Your task to perform on an android device: Set the phone to "Do not disturb". Image 0: 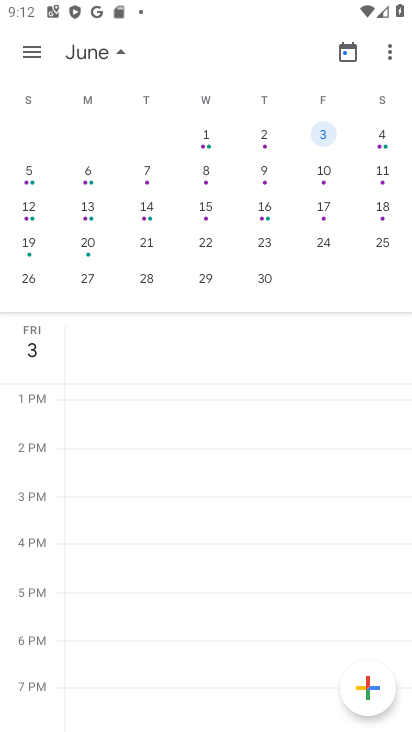
Step 0: press home button
Your task to perform on an android device: Set the phone to "Do not disturb". Image 1: 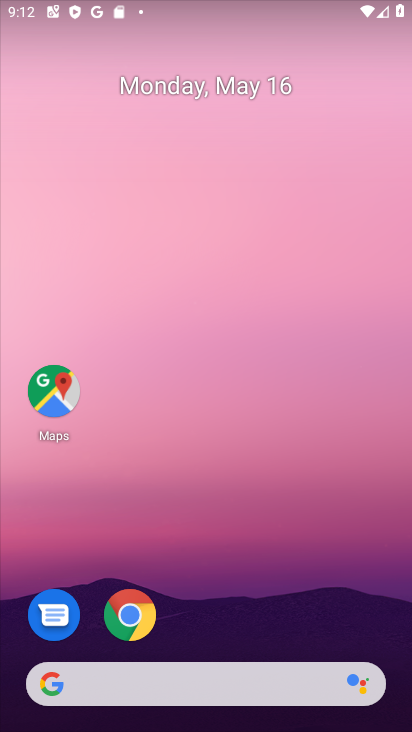
Step 1: drag from (301, 5) to (309, 564)
Your task to perform on an android device: Set the phone to "Do not disturb". Image 2: 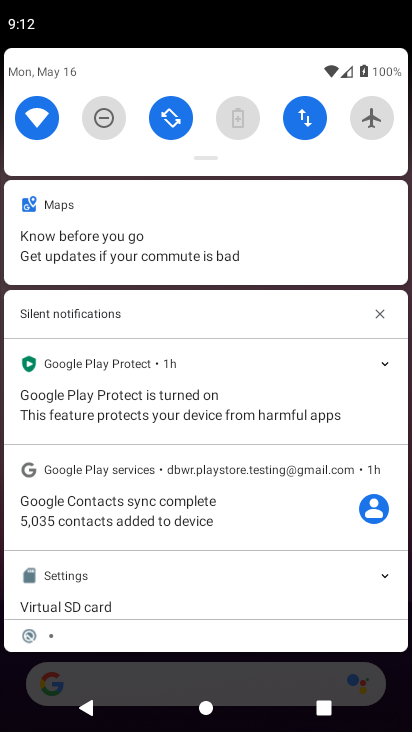
Step 2: click (102, 113)
Your task to perform on an android device: Set the phone to "Do not disturb". Image 3: 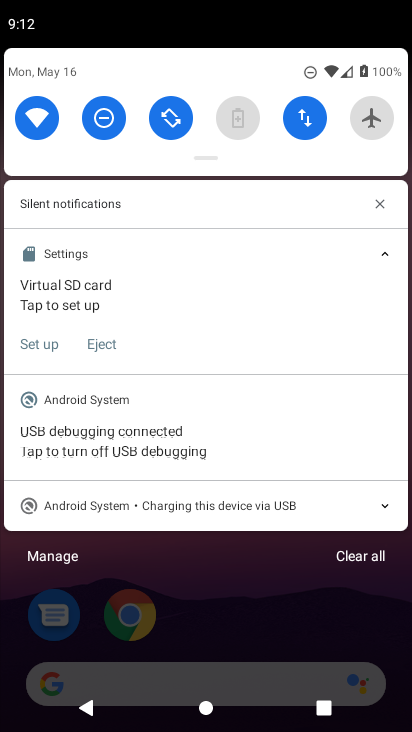
Step 3: task complete